Your task to perform on an android device: turn pop-ups off in chrome Image 0: 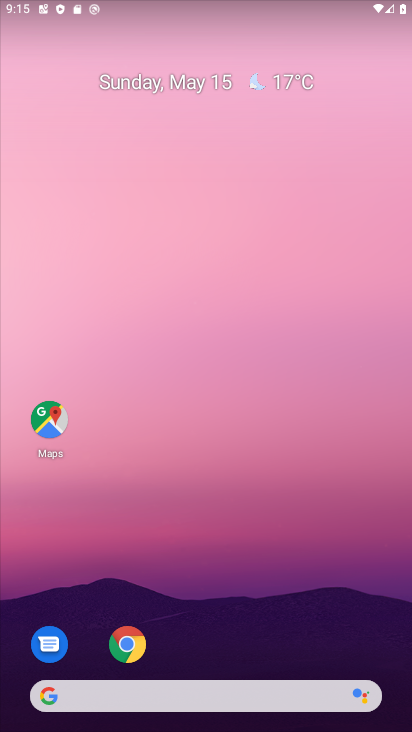
Step 0: drag from (180, 711) to (279, 203)
Your task to perform on an android device: turn pop-ups off in chrome Image 1: 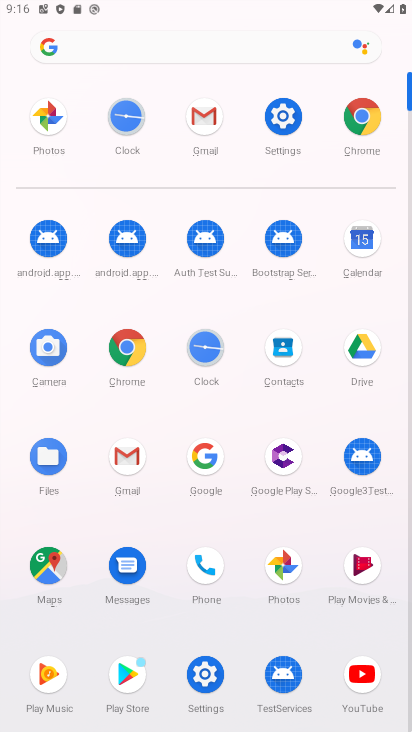
Step 1: click (366, 110)
Your task to perform on an android device: turn pop-ups off in chrome Image 2: 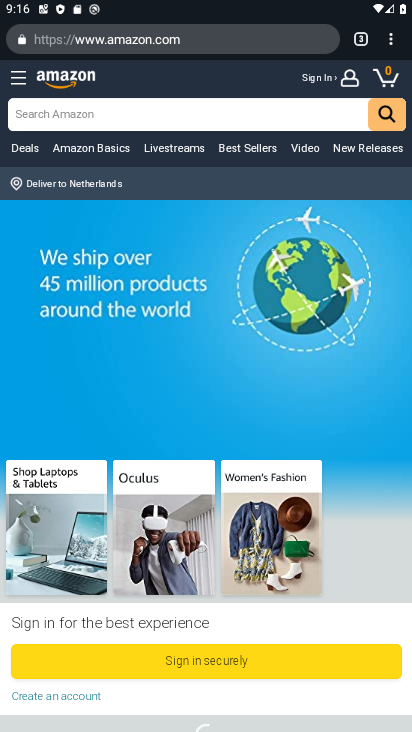
Step 2: click (394, 49)
Your task to perform on an android device: turn pop-ups off in chrome Image 3: 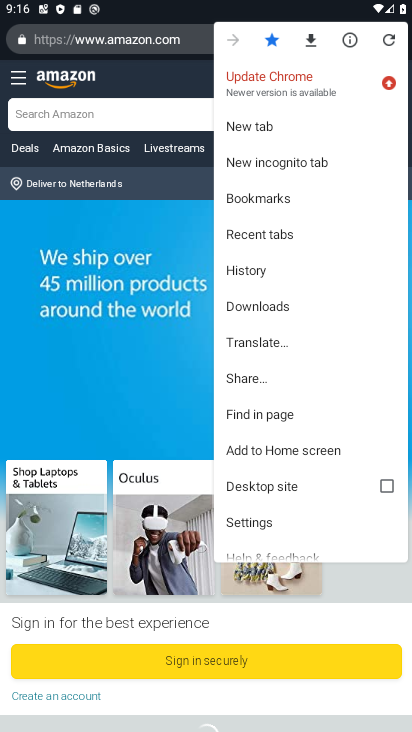
Step 3: click (255, 527)
Your task to perform on an android device: turn pop-ups off in chrome Image 4: 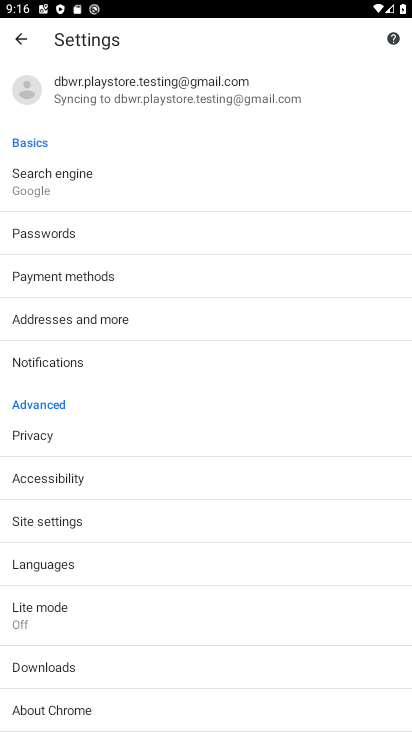
Step 4: click (85, 520)
Your task to perform on an android device: turn pop-ups off in chrome Image 5: 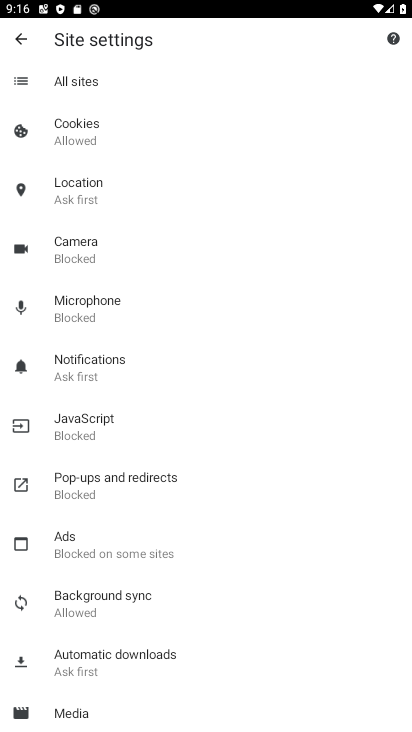
Step 5: click (168, 485)
Your task to perform on an android device: turn pop-ups off in chrome Image 6: 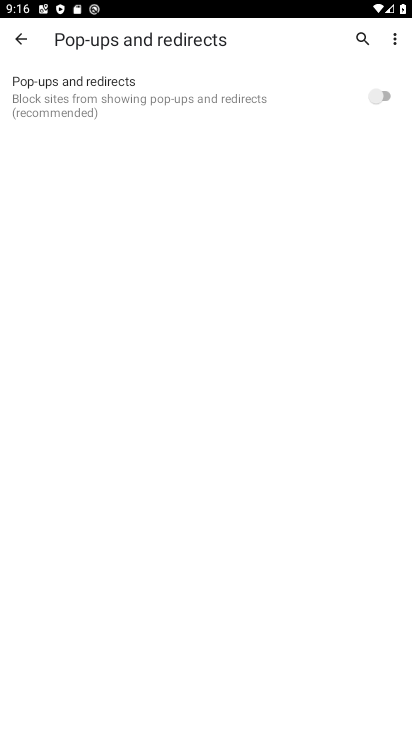
Step 6: click (374, 105)
Your task to perform on an android device: turn pop-ups off in chrome Image 7: 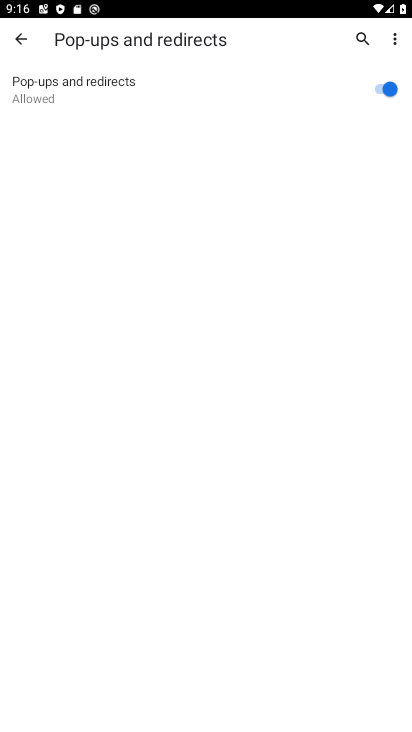
Step 7: click (374, 101)
Your task to perform on an android device: turn pop-ups off in chrome Image 8: 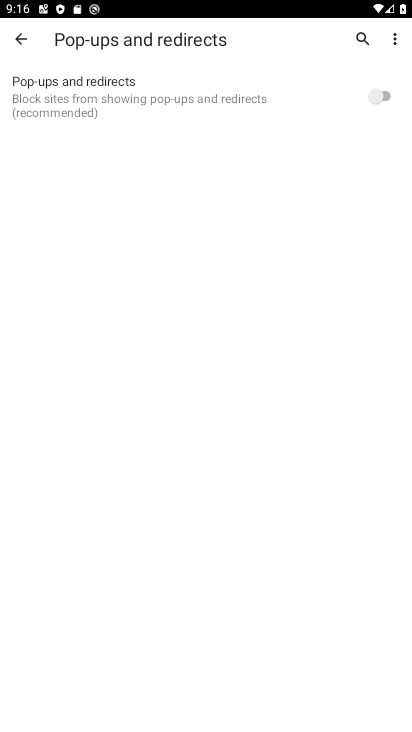
Step 8: task complete